Your task to perform on an android device: toggle wifi Image 0: 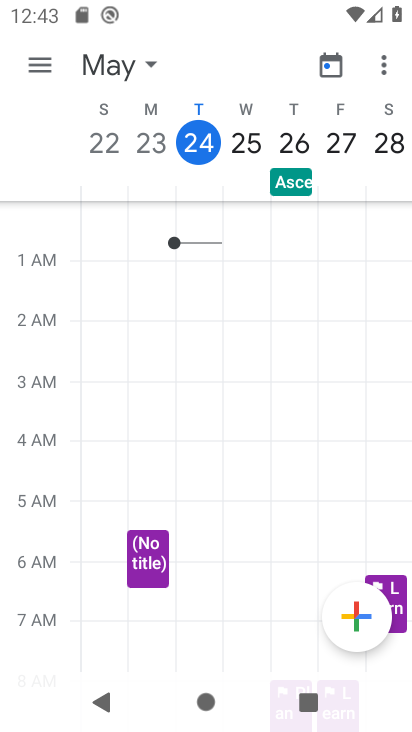
Step 0: press home button
Your task to perform on an android device: toggle wifi Image 1: 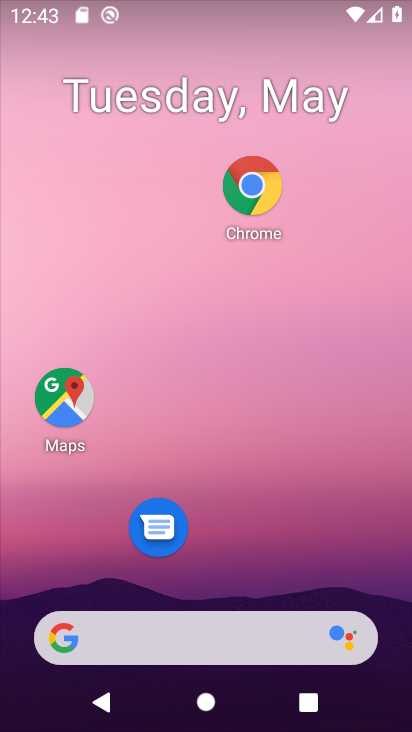
Step 1: drag from (296, 517) to (97, 52)
Your task to perform on an android device: toggle wifi Image 2: 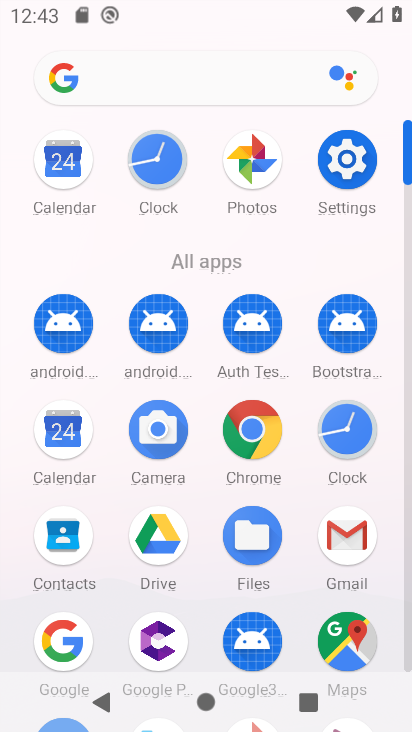
Step 2: click (346, 165)
Your task to perform on an android device: toggle wifi Image 3: 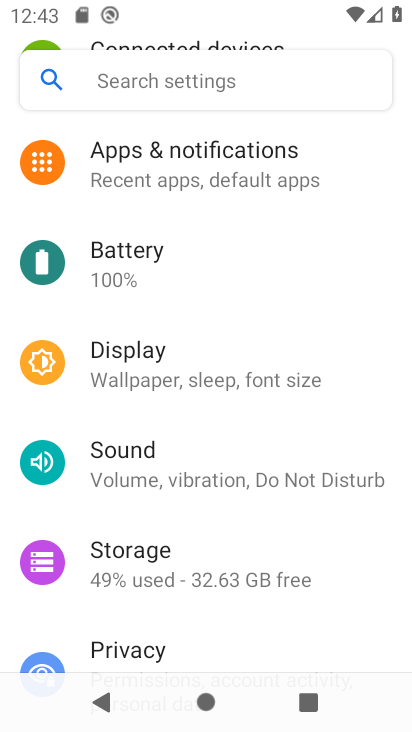
Step 3: drag from (201, 211) to (212, 532)
Your task to perform on an android device: toggle wifi Image 4: 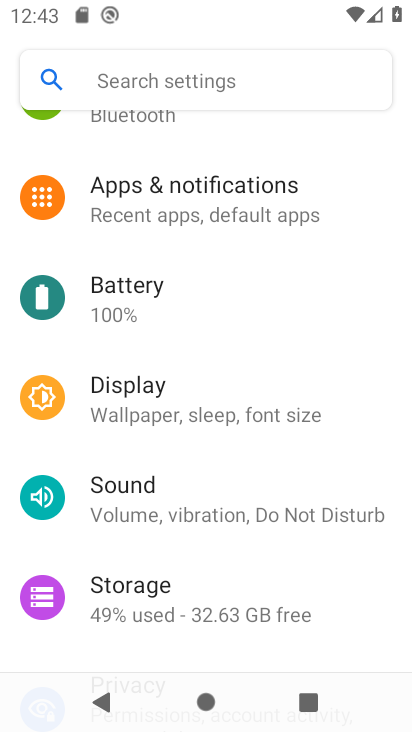
Step 4: drag from (187, 149) to (212, 646)
Your task to perform on an android device: toggle wifi Image 5: 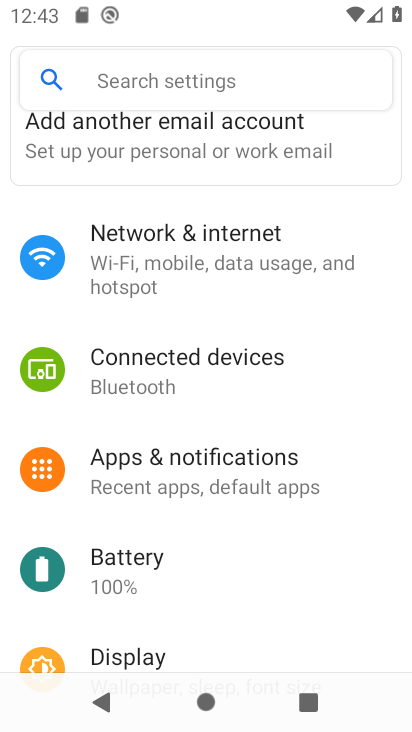
Step 5: click (180, 232)
Your task to perform on an android device: toggle wifi Image 6: 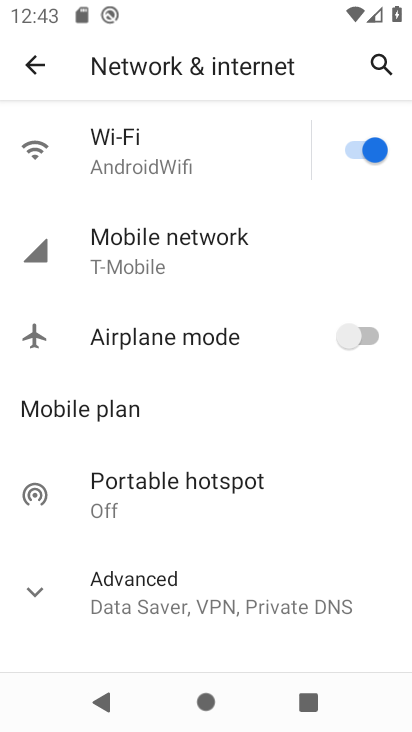
Step 6: click (371, 151)
Your task to perform on an android device: toggle wifi Image 7: 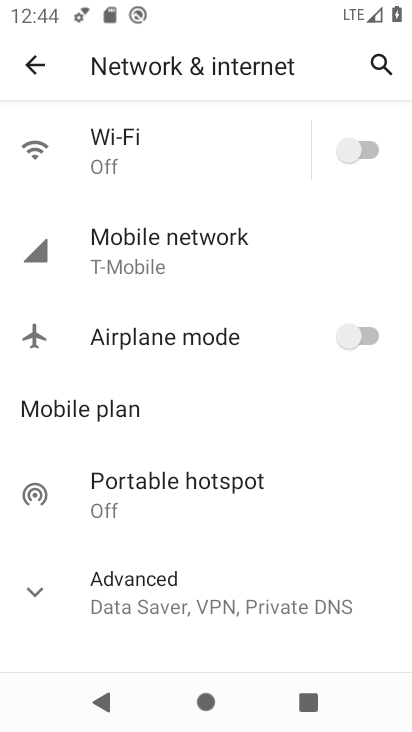
Step 7: click (346, 154)
Your task to perform on an android device: toggle wifi Image 8: 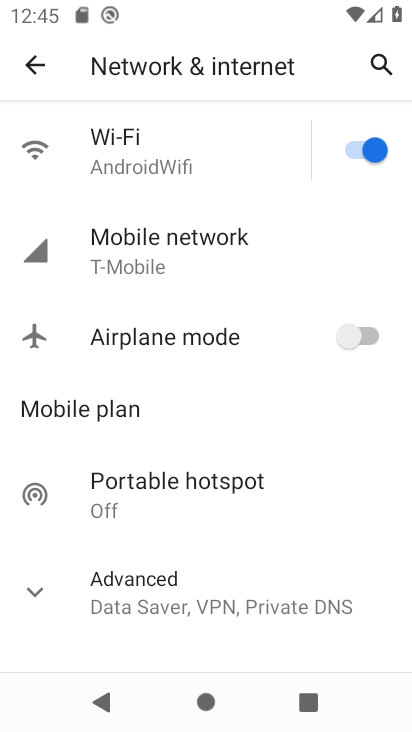
Step 8: task complete